Your task to perform on an android device: toggle sleep mode Image 0: 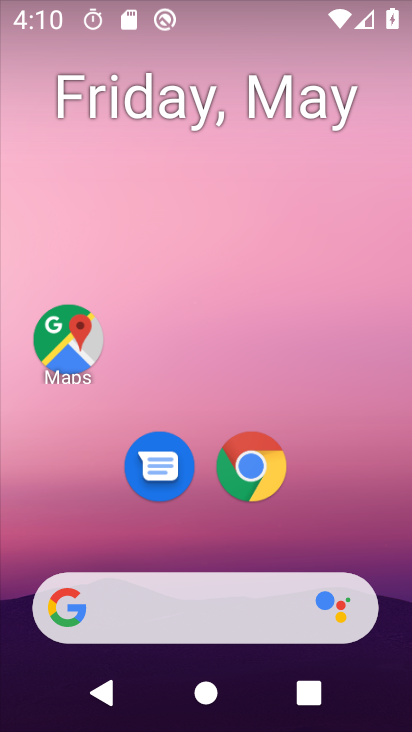
Step 0: drag from (387, 408) to (391, 290)
Your task to perform on an android device: toggle sleep mode Image 1: 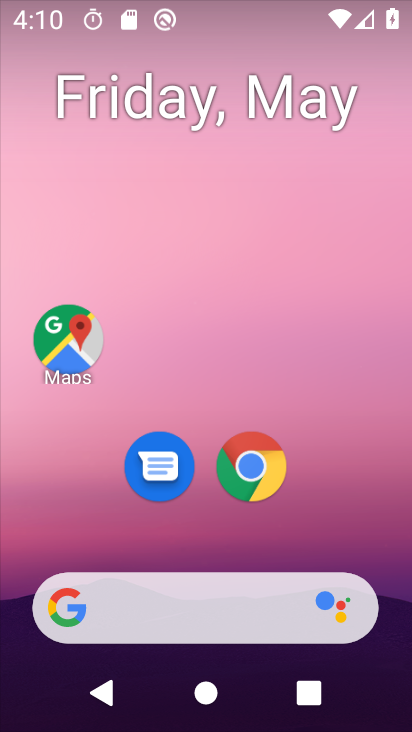
Step 1: click (380, 195)
Your task to perform on an android device: toggle sleep mode Image 2: 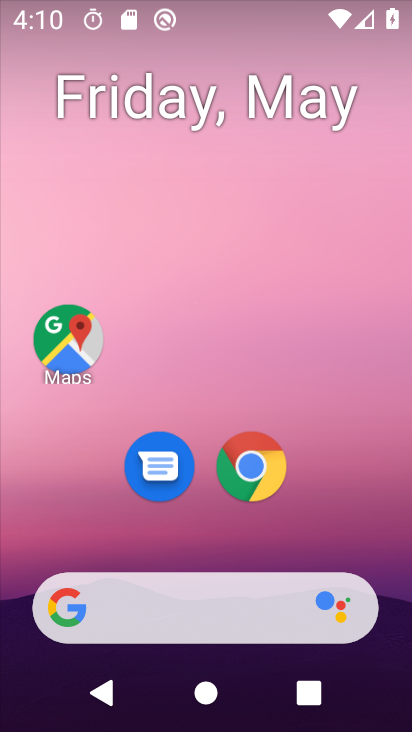
Step 2: drag from (385, 598) to (349, 227)
Your task to perform on an android device: toggle sleep mode Image 3: 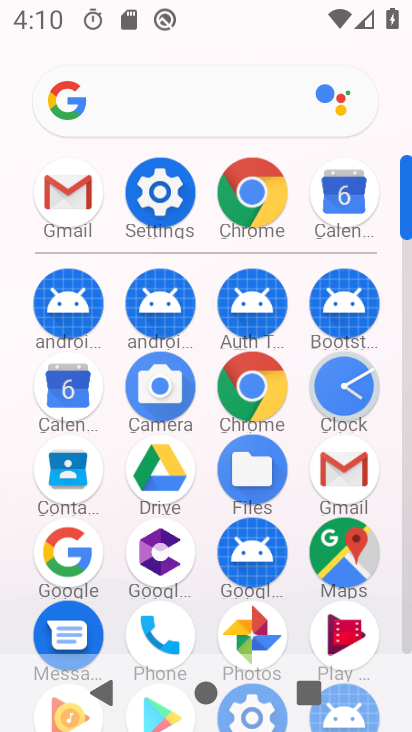
Step 3: click (145, 201)
Your task to perform on an android device: toggle sleep mode Image 4: 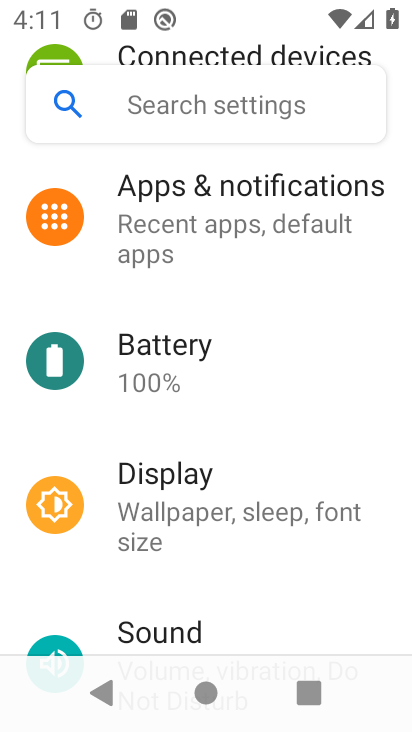
Step 4: click (177, 496)
Your task to perform on an android device: toggle sleep mode Image 5: 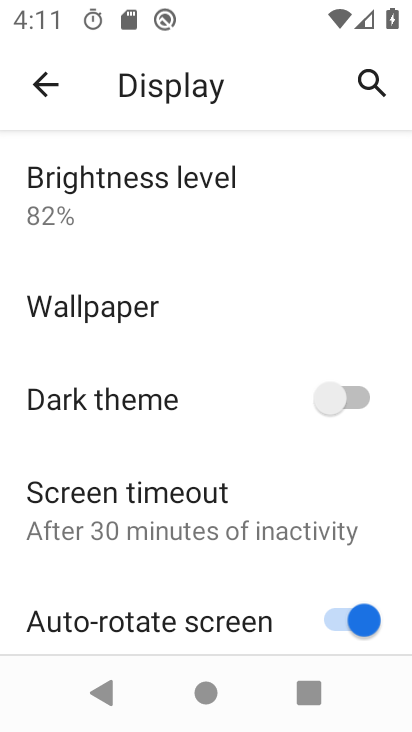
Step 5: click (157, 502)
Your task to perform on an android device: toggle sleep mode Image 6: 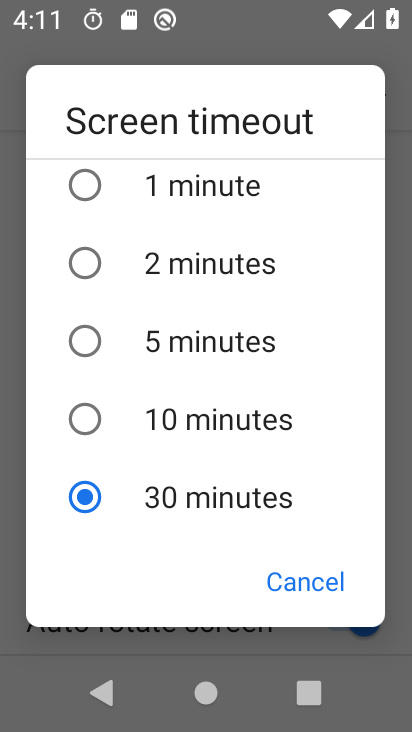
Step 6: click (72, 342)
Your task to perform on an android device: toggle sleep mode Image 7: 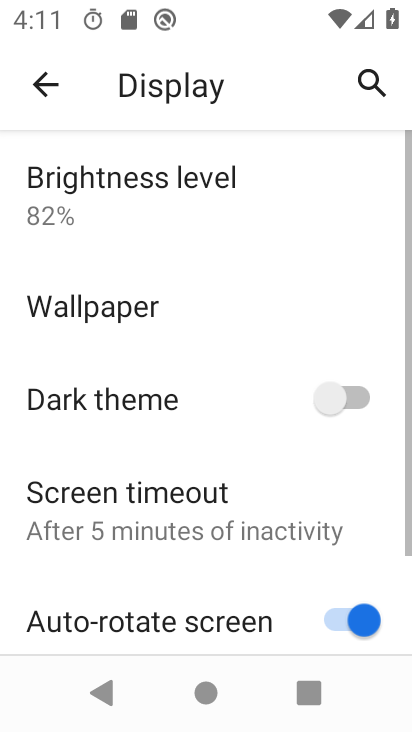
Step 7: task complete